Your task to perform on an android device: add a label to a message in the gmail app Image 0: 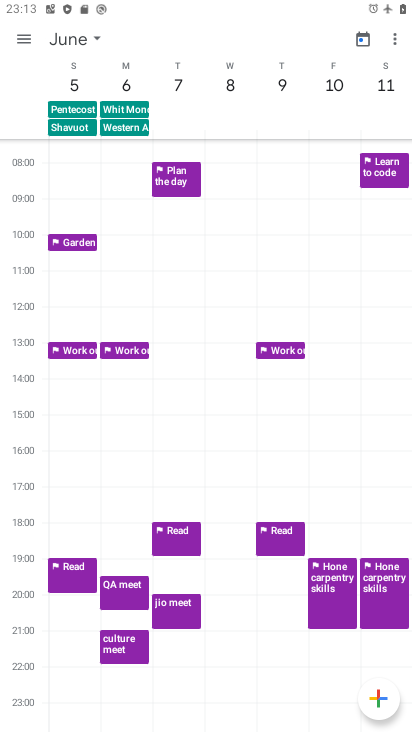
Step 0: press home button
Your task to perform on an android device: add a label to a message in the gmail app Image 1: 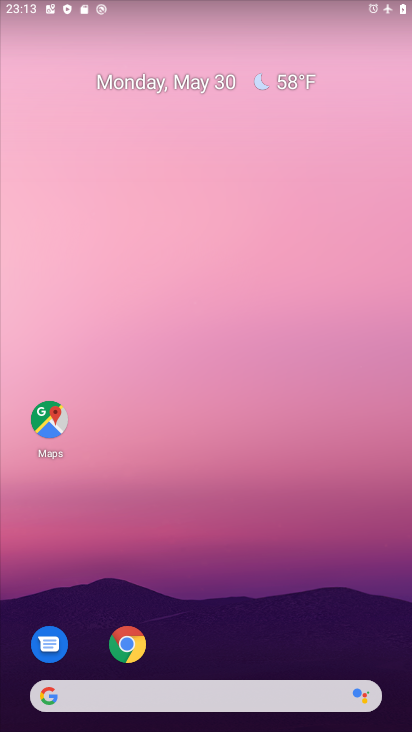
Step 1: drag from (387, 656) to (319, 49)
Your task to perform on an android device: add a label to a message in the gmail app Image 2: 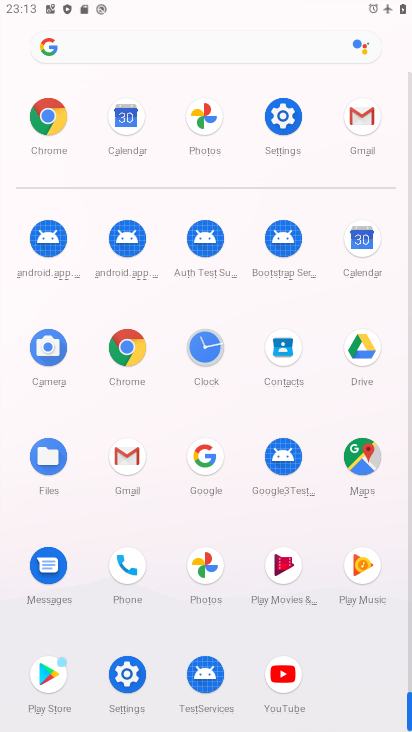
Step 2: click (128, 458)
Your task to perform on an android device: add a label to a message in the gmail app Image 3: 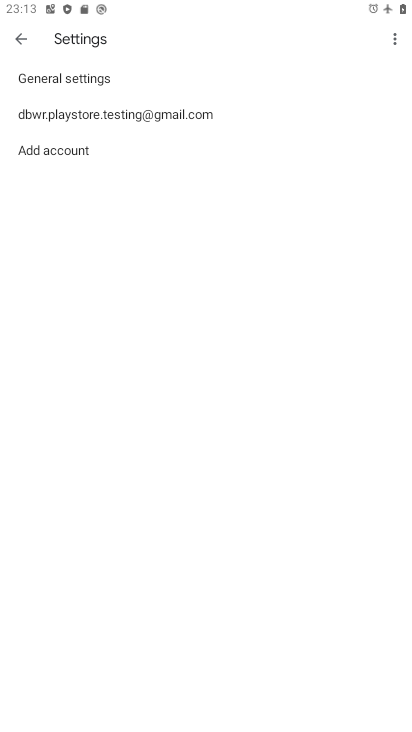
Step 3: press back button
Your task to perform on an android device: add a label to a message in the gmail app Image 4: 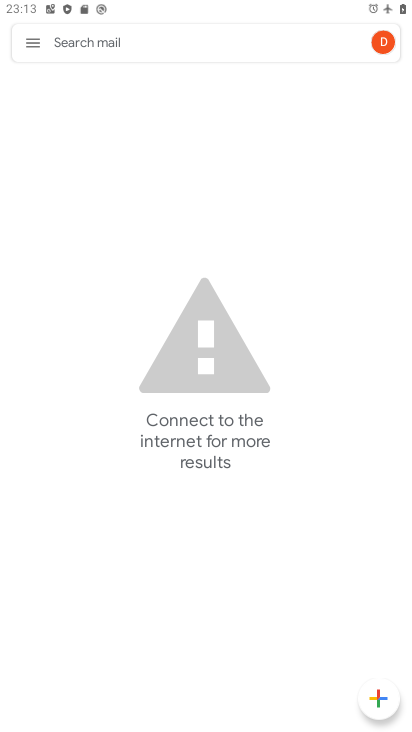
Step 4: click (33, 39)
Your task to perform on an android device: add a label to a message in the gmail app Image 5: 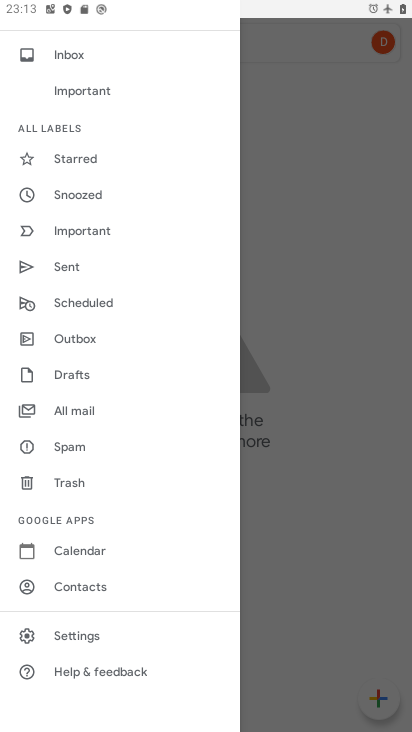
Step 5: drag from (137, 309) to (126, 479)
Your task to perform on an android device: add a label to a message in the gmail app Image 6: 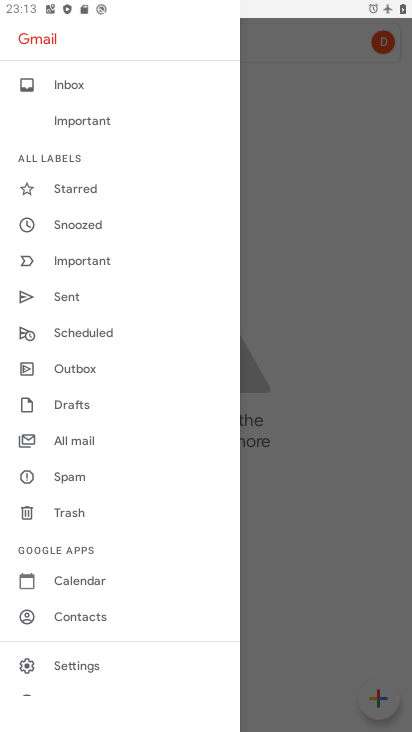
Step 6: click (50, 427)
Your task to perform on an android device: add a label to a message in the gmail app Image 7: 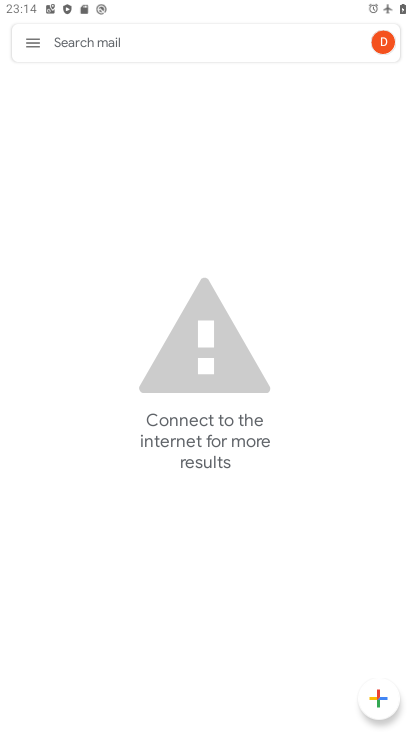
Step 7: task complete